Your task to perform on an android device: What's on my calendar today? Image 0: 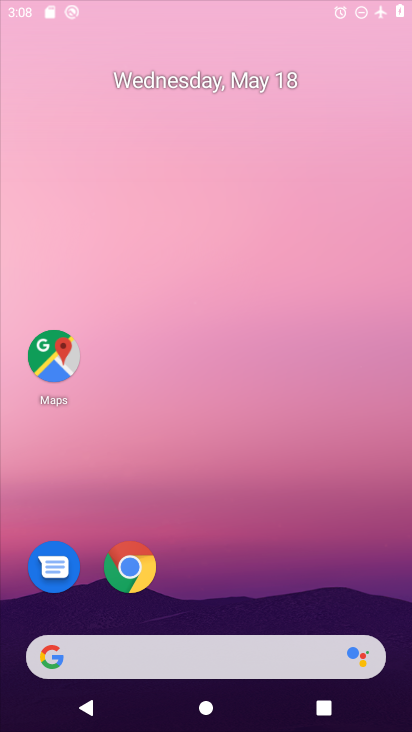
Step 0: drag from (225, 565) to (214, 290)
Your task to perform on an android device: What's on my calendar today? Image 1: 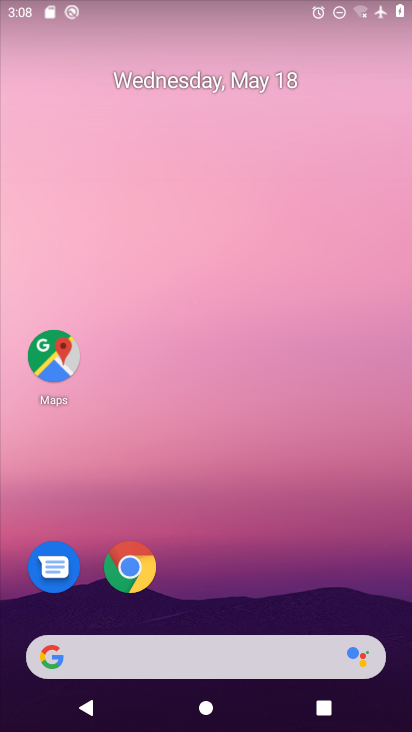
Step 1: drag from (228, 531) to (212, 228)
Your task to perform on an android device: What's on my calendar today? Image 2: 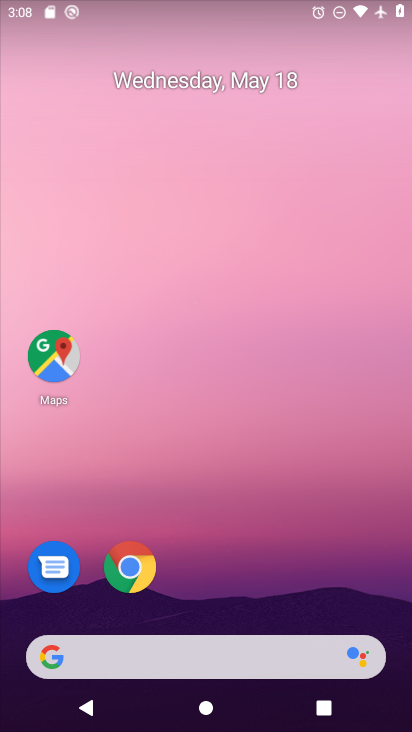
Step 2: drag from (165, 618) to (180, 207)
Your task to perform on an android device: What's on my calendar today? Image 3: 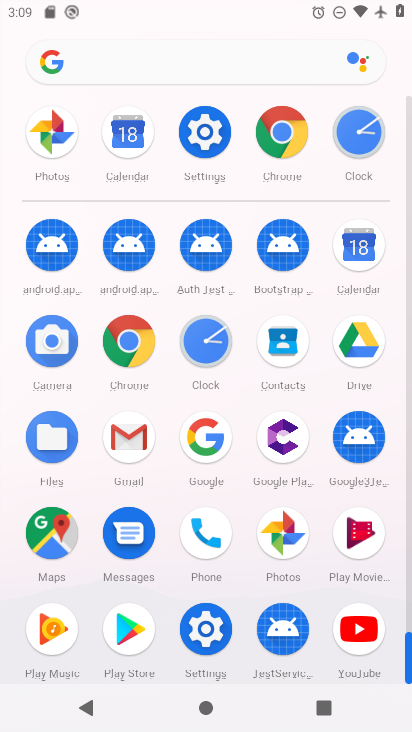
Step 3: click (126, 135)
Your task to perform on an android device: What's on my calendar today? Image 4: 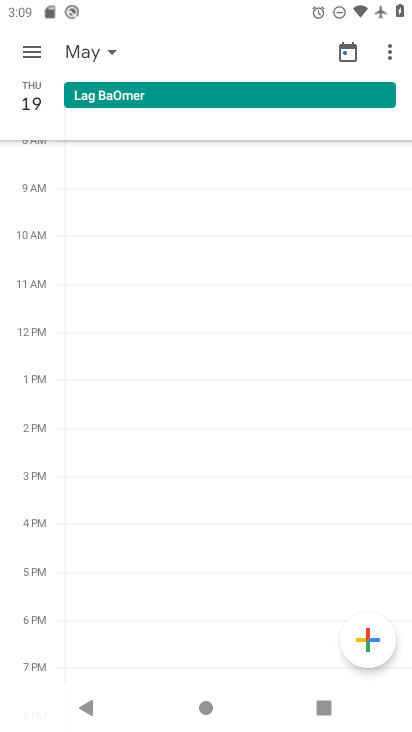
Step 4: task complete